Your task to perform on an android device: Open Chrome and go to the settings page Image 0: 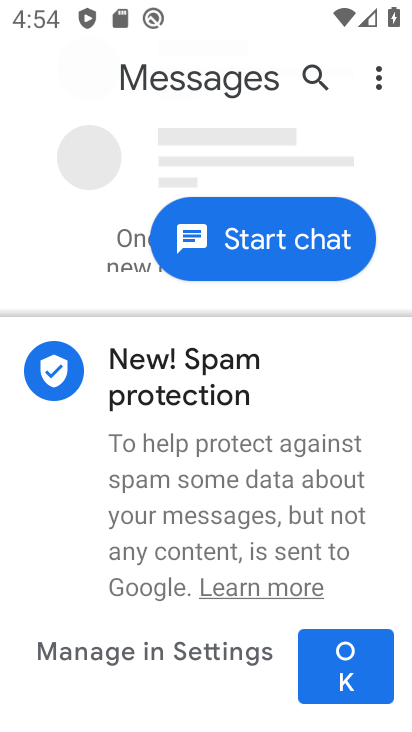
Step 0: drag from (339, 551) to (277, 132)
Your task to perform on an android device: Open Chrome and go to the settings page Image 1: 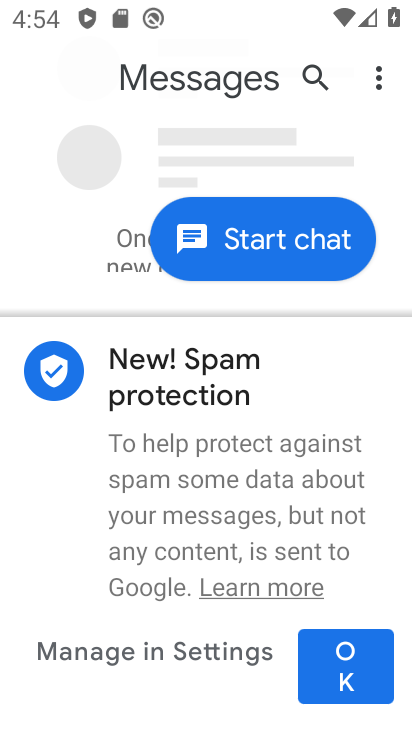
Step 1: press back button
Your task to perform on an android device: Open Chrome and go to the settings page Image 2: 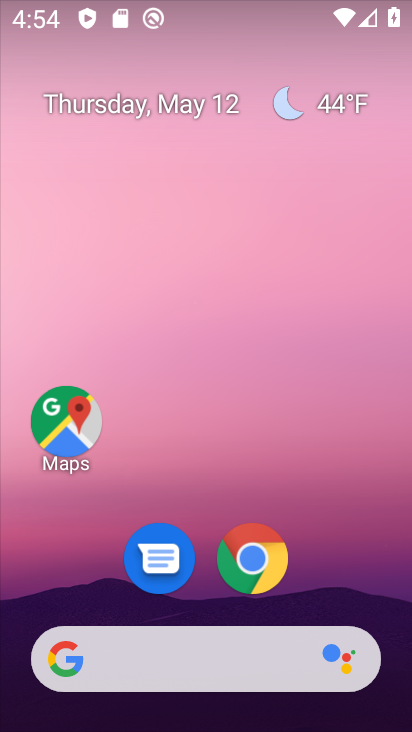
Step 2: drag from (331, 549) to (264, 40)
Your task to perform on an android device: Open Chrome and go to the settings page Image 3: 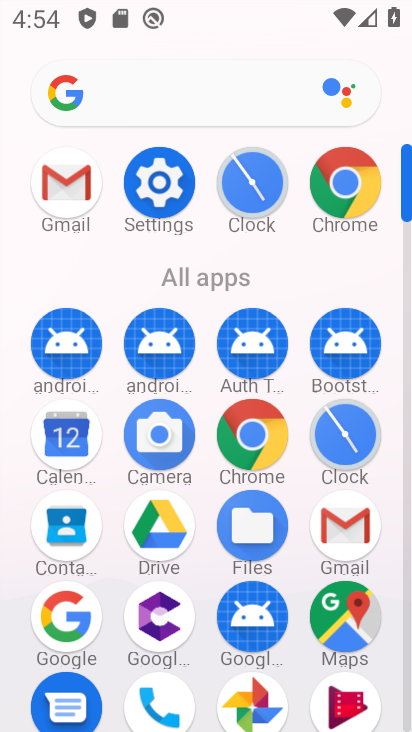
Step 3: click (244, 427)
Your task to perform on an android device: Open Chrome and go to the settings page Image 4: 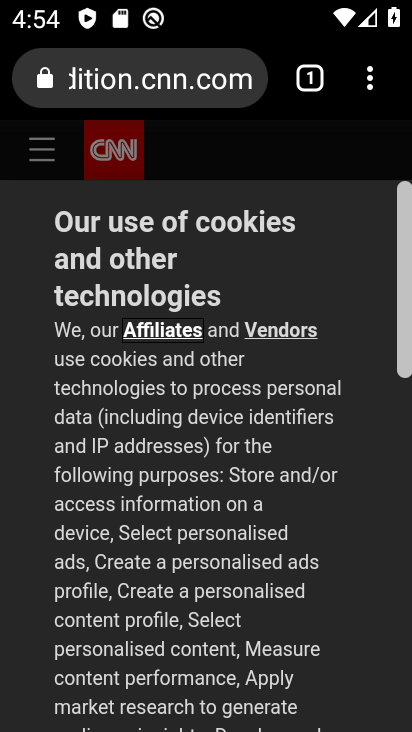
Step 4: task complete